Your task to perform on an android device: Search for seafood restaurants on Google Maps Image 0: 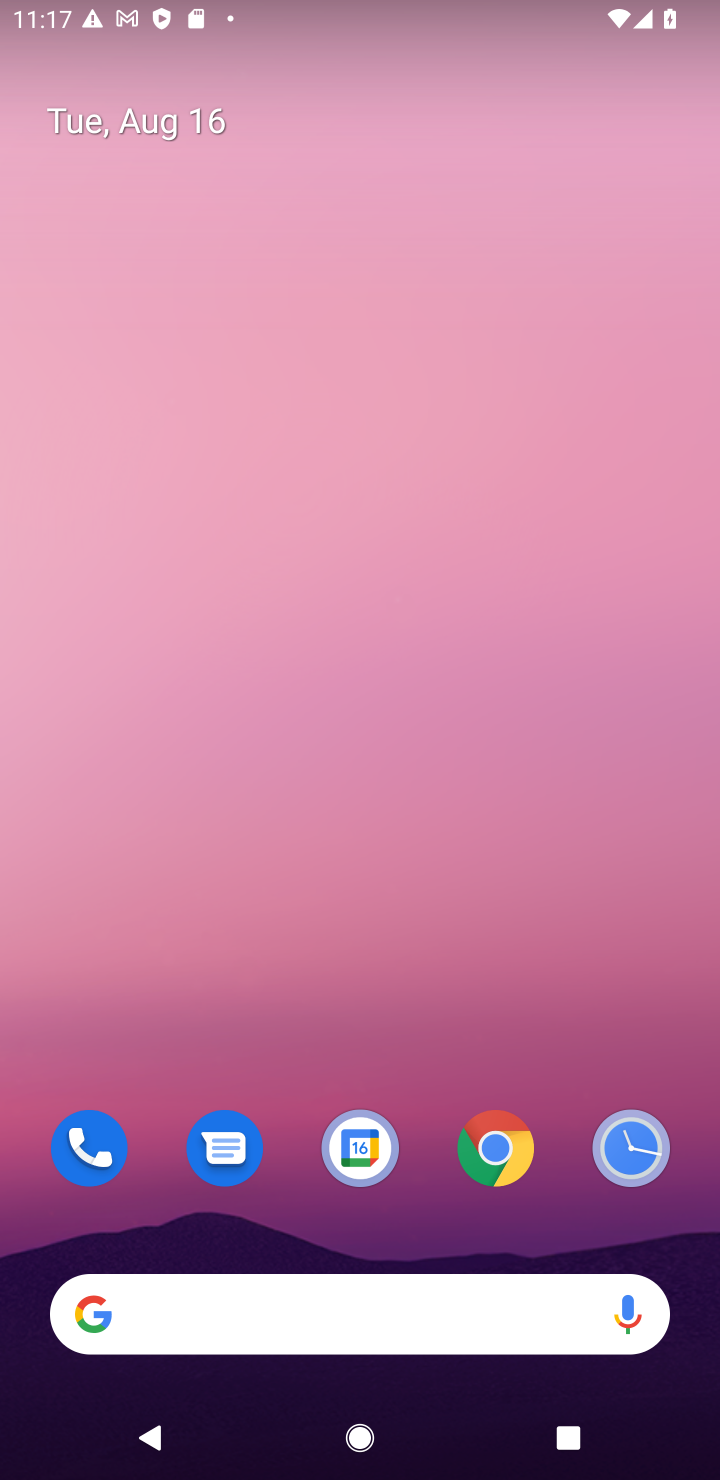
Step 0: press home button
Your task to perform on an android device: Search for seafood restaurants on Google Maps Image 1: 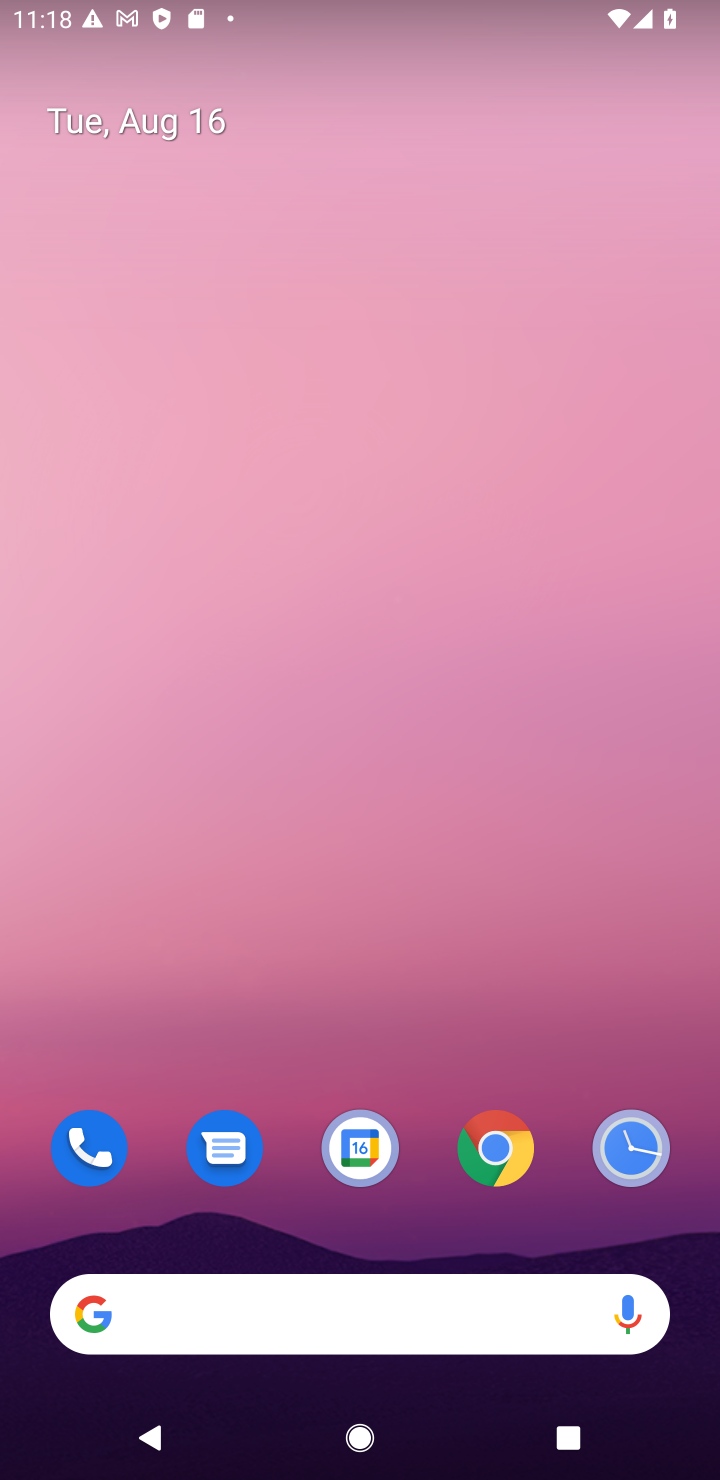
Step 1: press home button
Your task to perform on an android device: Search for seafood restaurants on Google Maps Image 2: 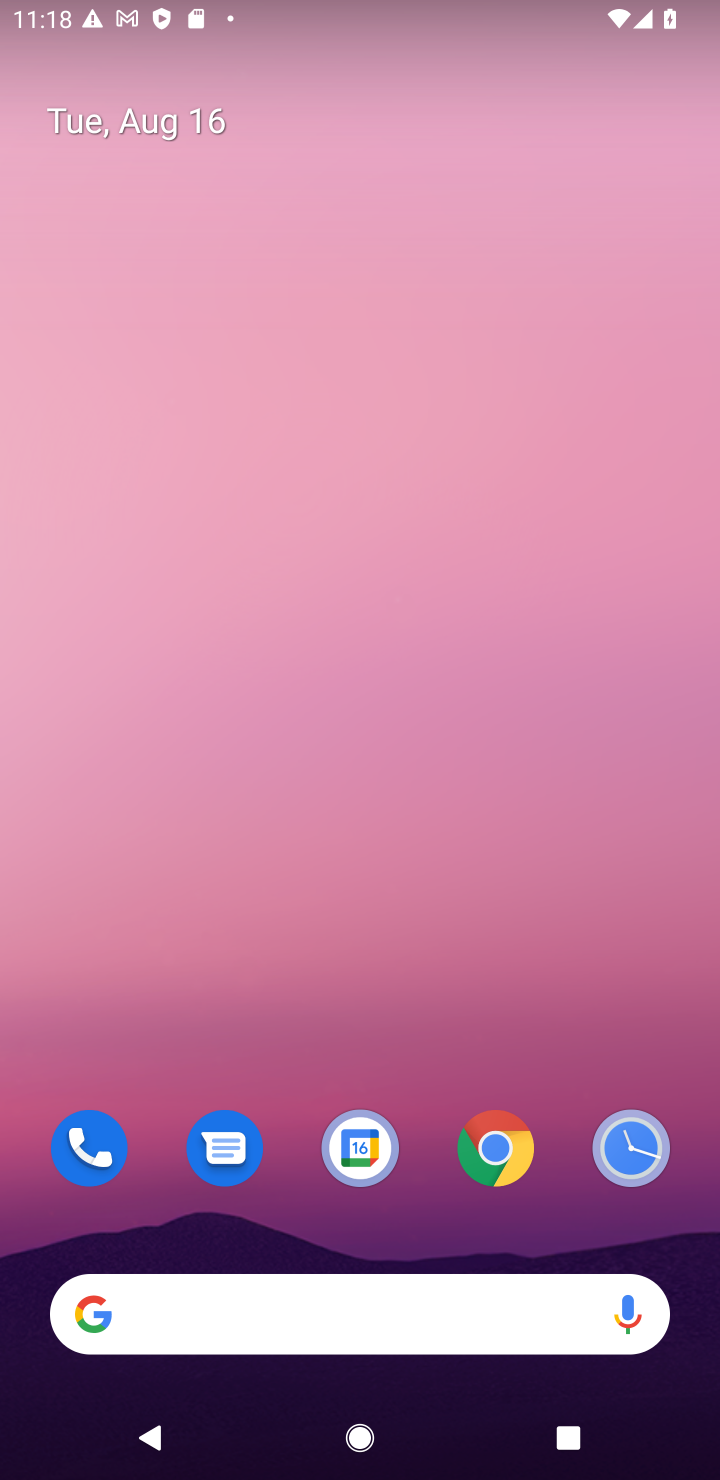
Step 2: press home button
Your task to perform on an android device: Search for seafood restaurants on Google Maps Image 3: 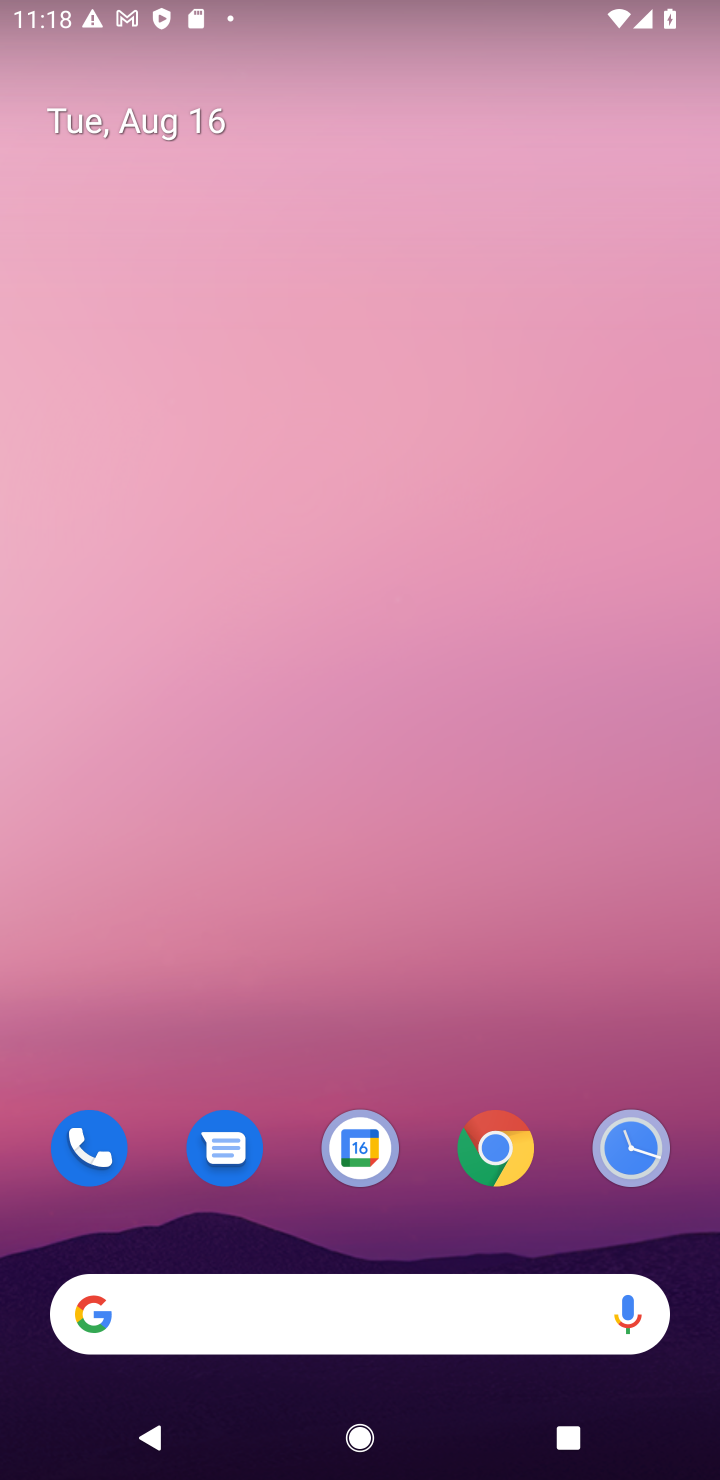
Step 3: press home button
Your task to perform on an android device: Search for seafood restaurants on Google Maps Image 4: 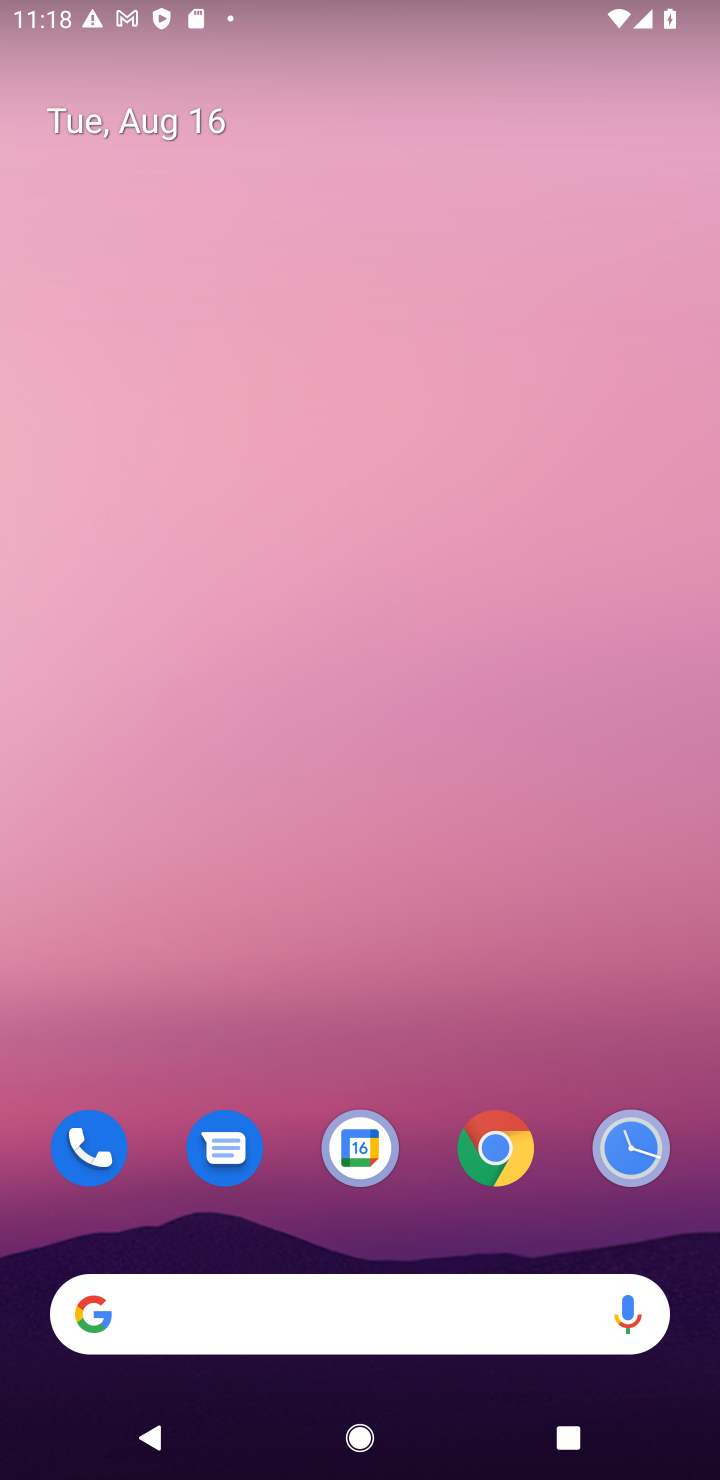
Step 4: press home button
Your task to perform on an android device: Search for seafood restaurants on Google Maps Image 5: 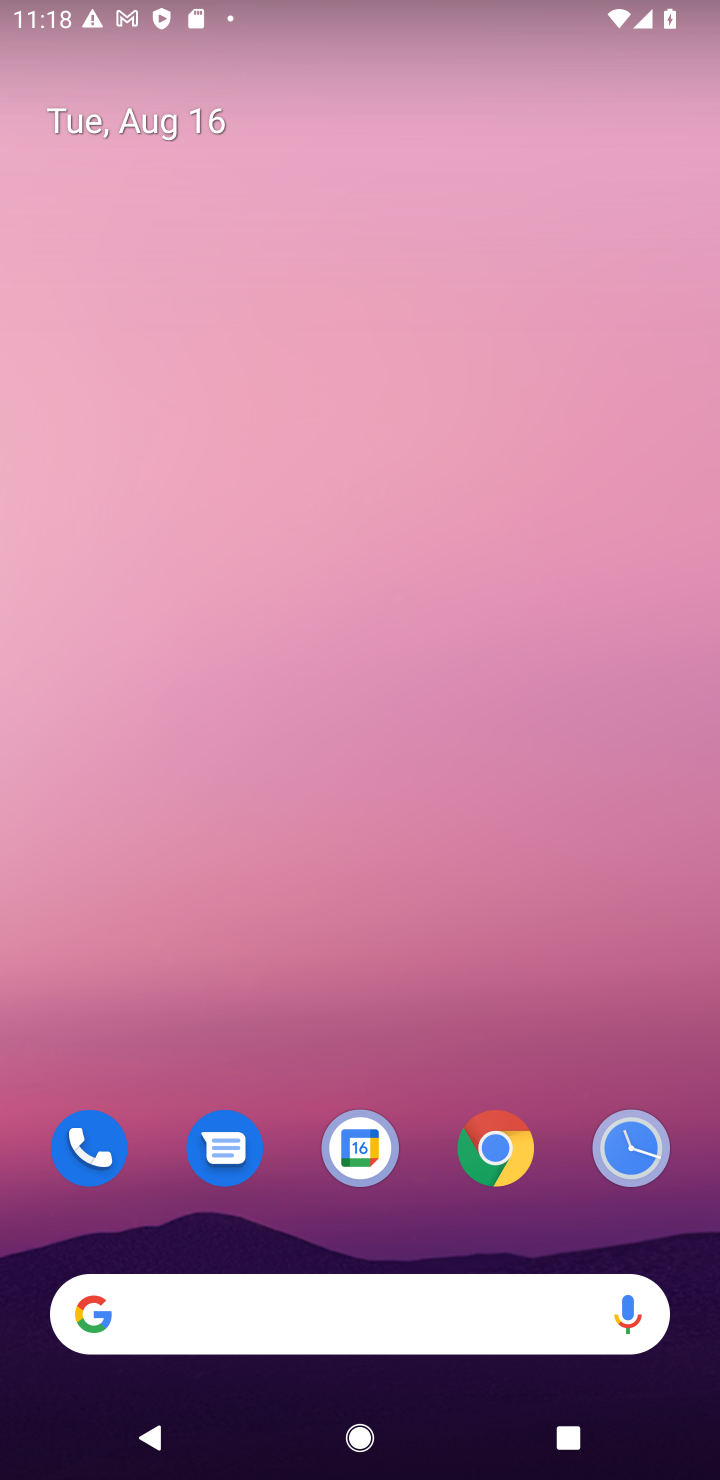
Step 5: drag from (358, 1065) to (425, 65)
Your task to perform on an android device: Search for seafood restaurants on Google Maps Image 6: 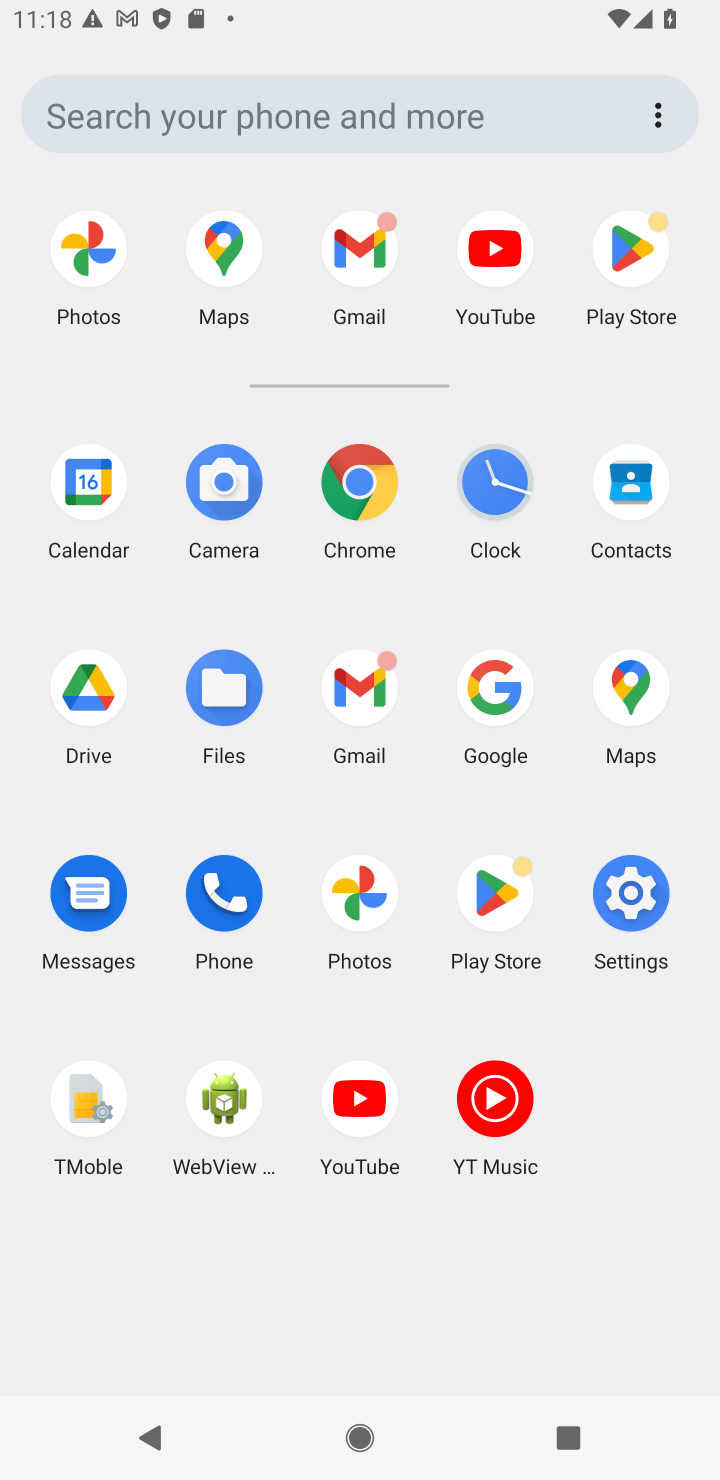
Step 6: click (224, 284)
Your task to perform on an android device: Search for seafood restaurants on Google Maps Image 7: 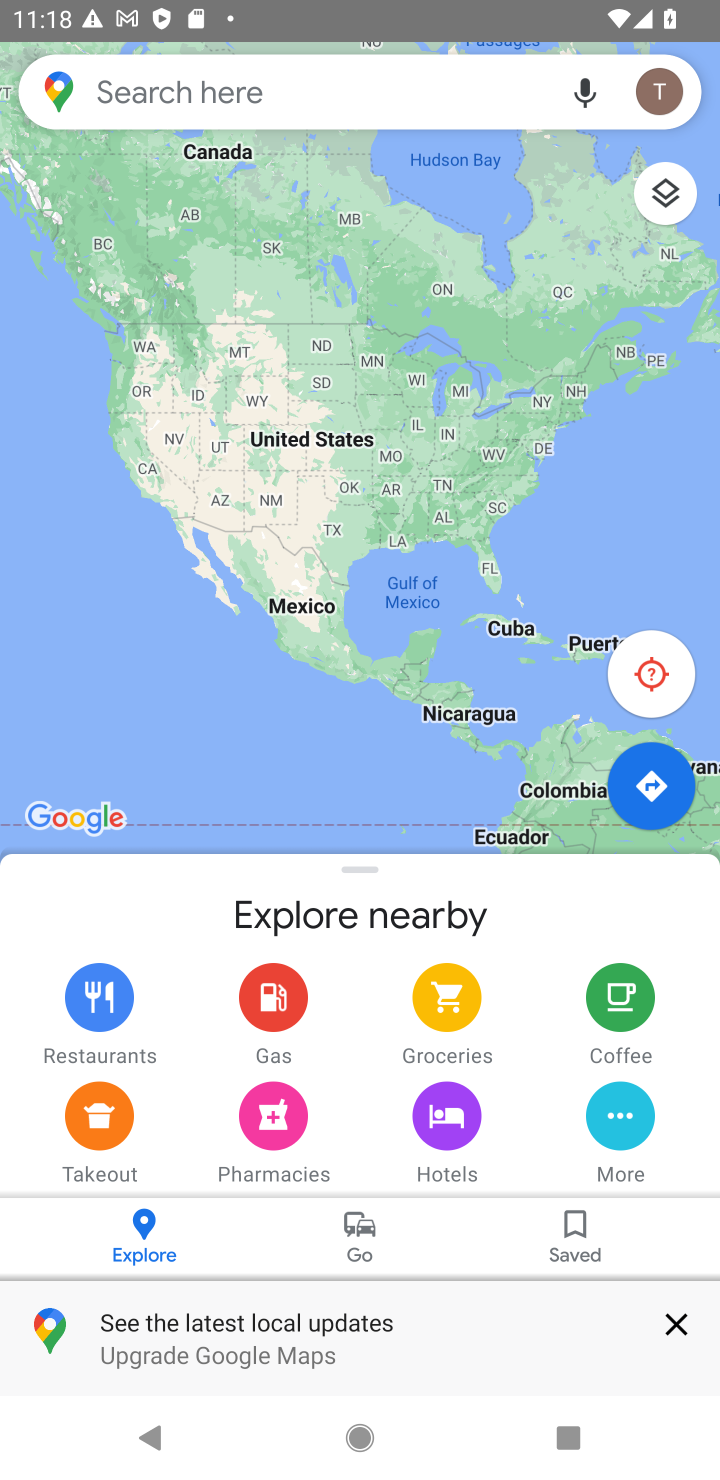
Step 7: click (231, 90)
Your task to perform on an android device: Search for seafood restaurants on Google Maps Image 8: 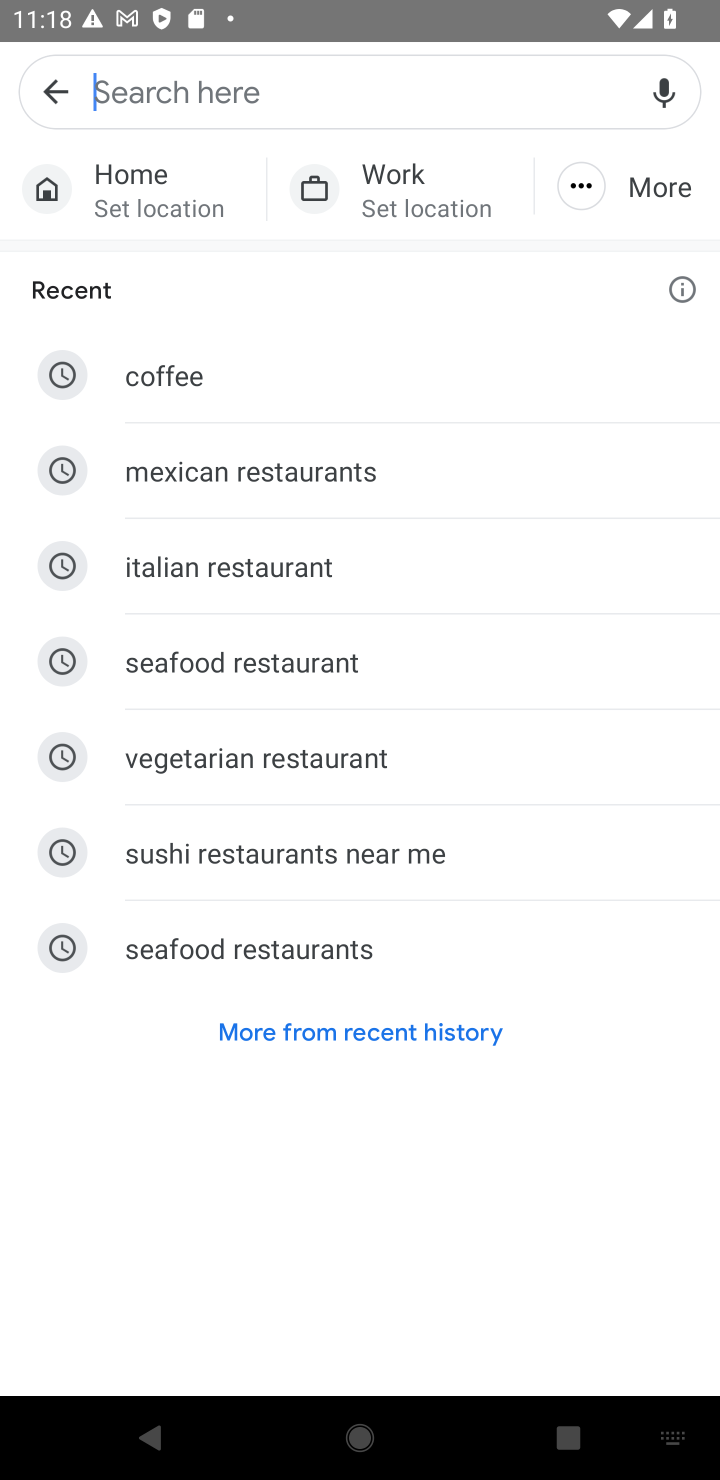
Step 8: type "seafood restaurants "
Your task to perform on an android device: Search for seafood restaurants on Google Maps Image 9: 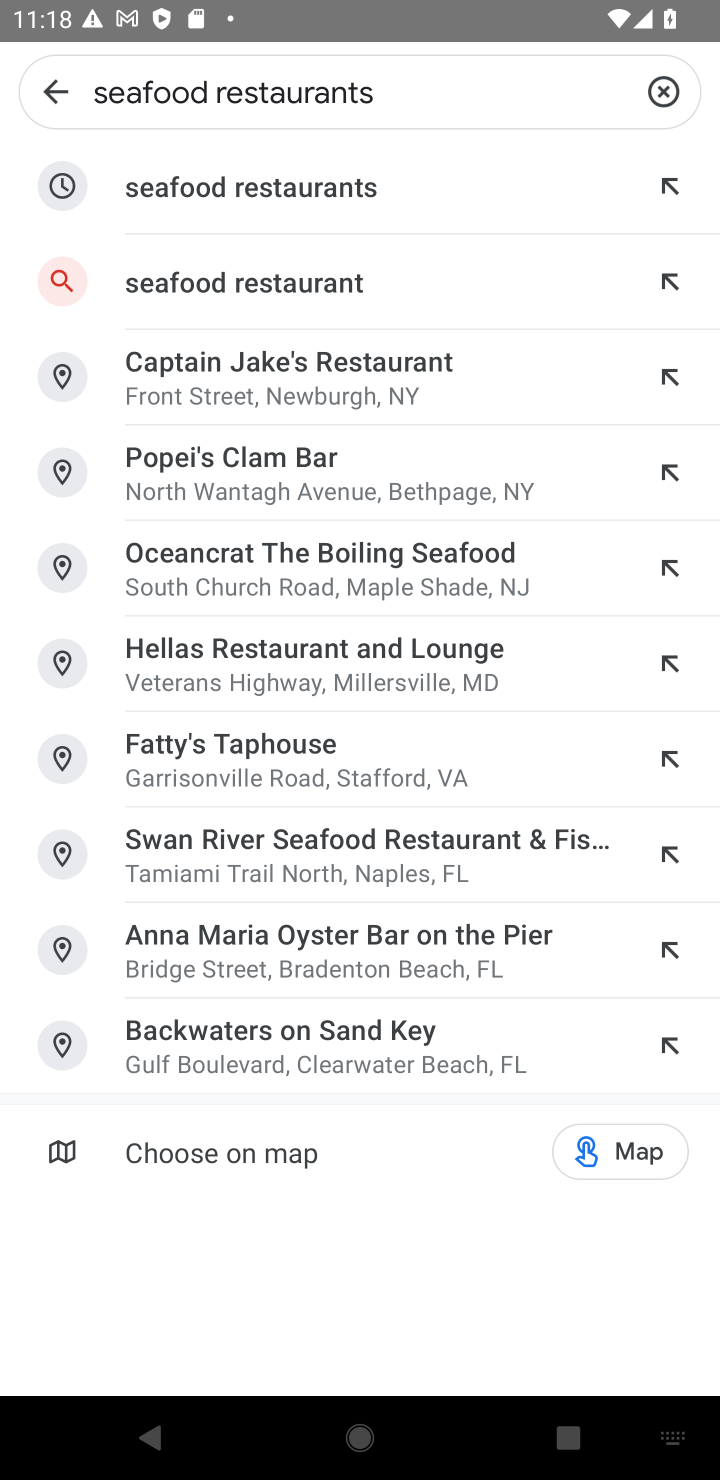
Step 9: click (270, 185)
Your task to perform on an android device: Search for seafood restaurants on Google Maps Image 10: 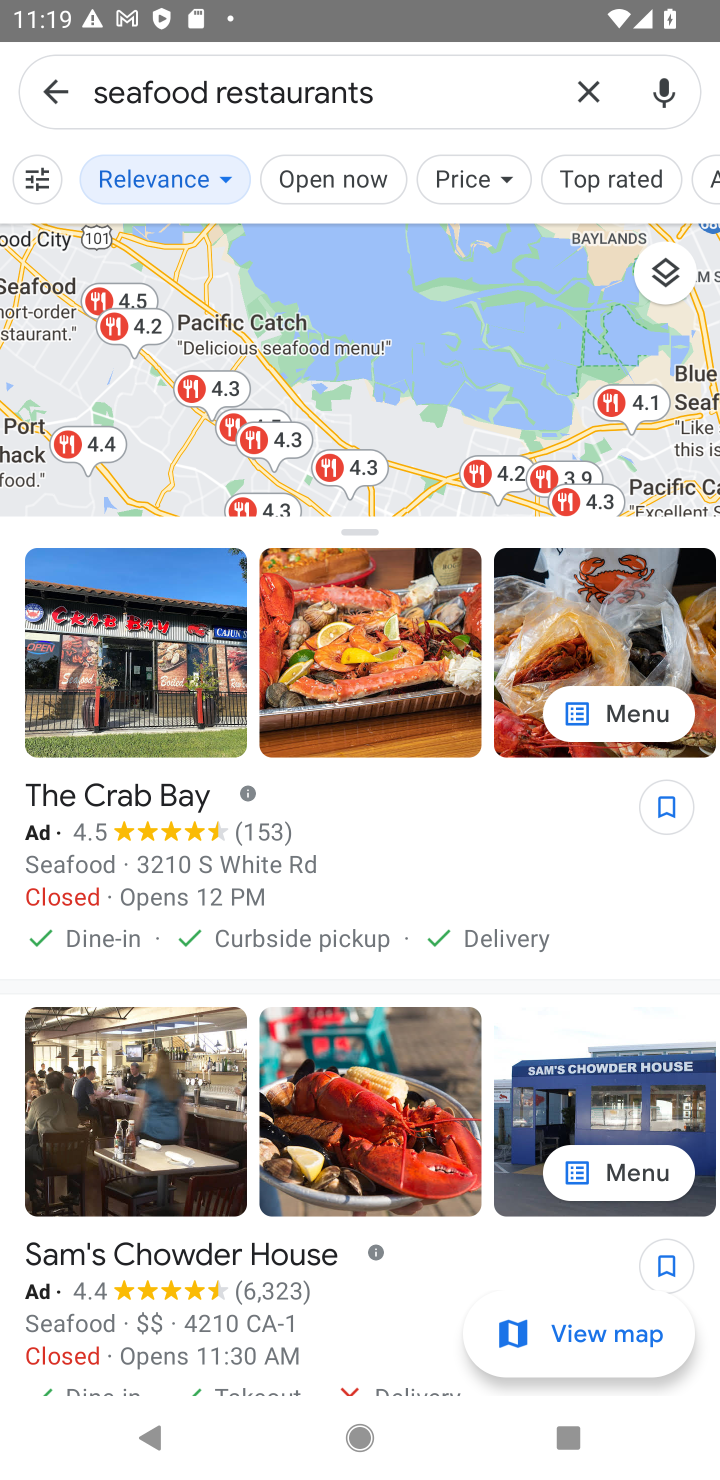
Step 10: task complete